Your task to perform on an android device: Open the calendar app, open the side menu, and click the "Day" option Image 0: 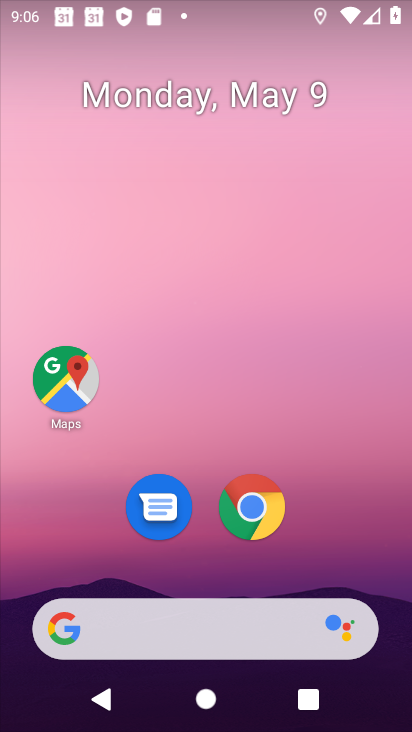
Step 0: drag from (95, 584) to (212, 17)
Your task to perform on an android device: Open the calendar app, open the side menu, and click the "Day" option Image 1: 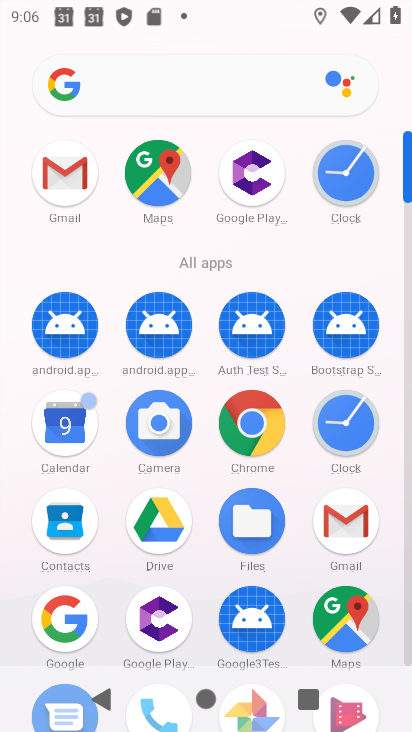
Step 1: click (46, 429)
Your task to perform on an android device: Open the calendar app, open the side menu, and click the "Day" option Image 2: 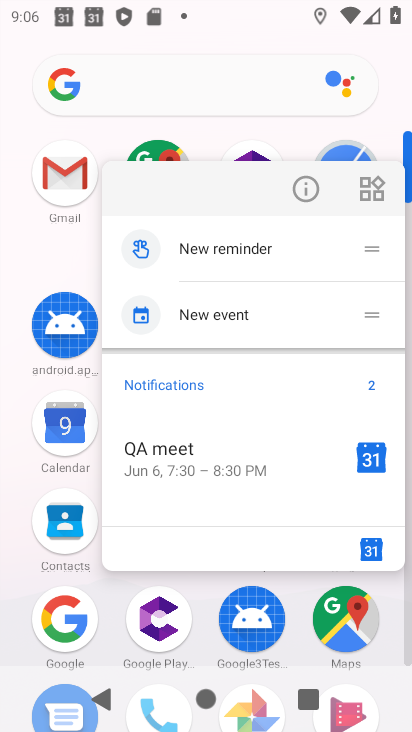
Step 2: click (47, 427)
Your task to perform on an android device: Open the calendar app, open the side menu, and click the "Day" option Image 3: 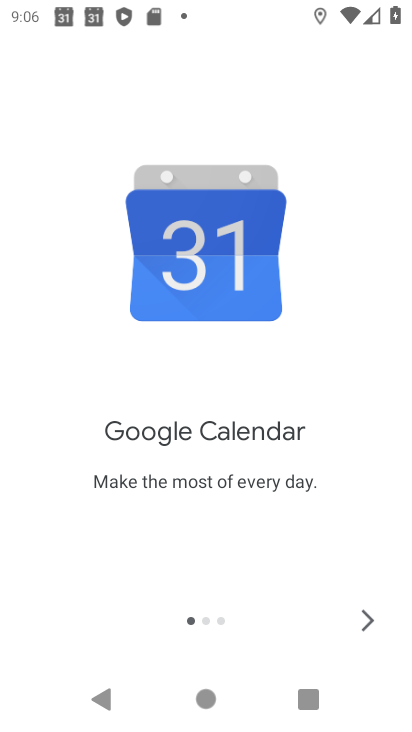
Step 3: click (373, 644)
Your task to perform on an android device: Open the calendar app, open the side menu, and click the "Day" option Image 4: 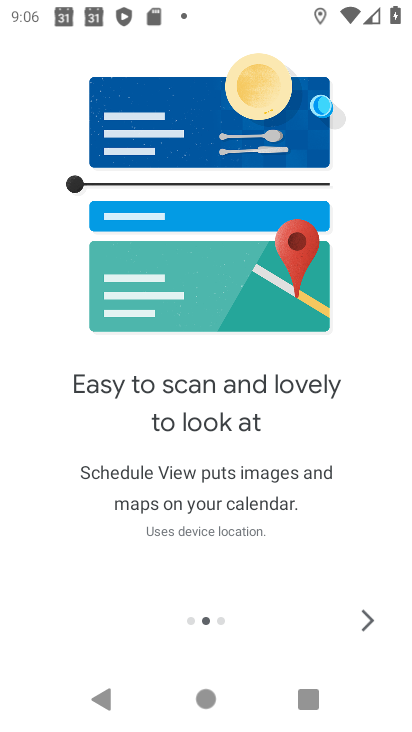
Step 4: click (372, 639)
Your task to perform on an android device: Open the calendar app, open the side menu, and click the "Day" option Image 5: 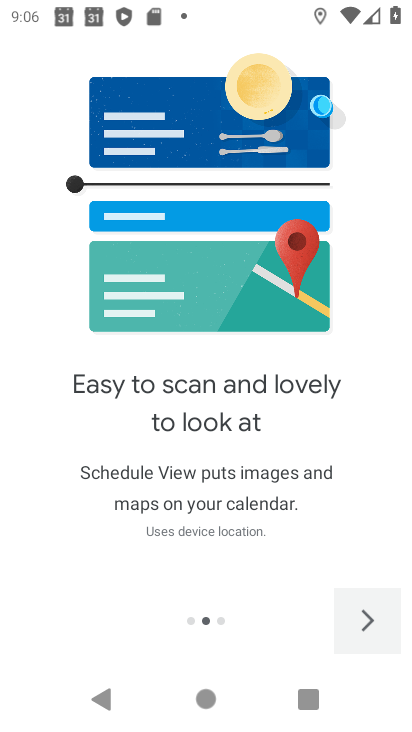
Step 5: click (368, 635)
Your task to perform on an android device: Open the calendar app, open the side menu, and click the "Day" option Image 6: 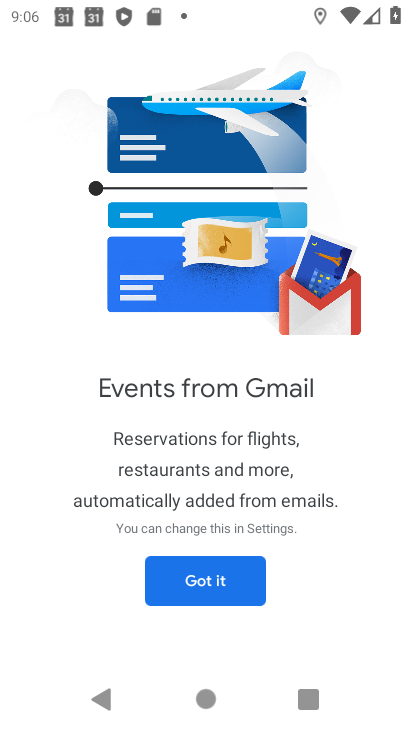
Step 6: click (232, 588)
Your task to perform on an android device: Open the calendar app, open the side menu, and click the "Day" option Image 7: 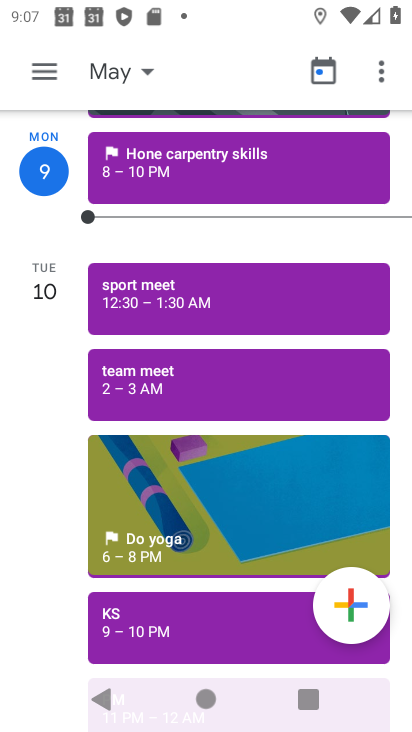
Step 7: click (50, 69)
Your task to perform on an android device: Open the calendar app, open the side menu, and click the "Day" option Image 8: 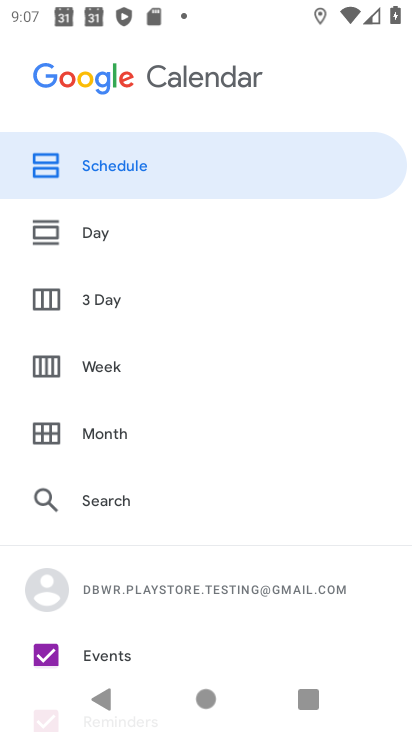
Step 8: click (93, 235)
Your task to perform on an android device: Open the calendar app, open the side menu, and click the "Day" option Image 9: 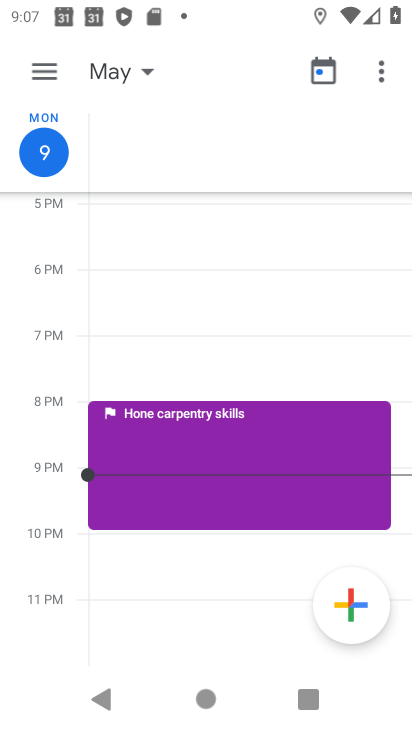
Step 9: task complete